Your task to perform on an android device: turn on javascript in the chrome app Image 0: 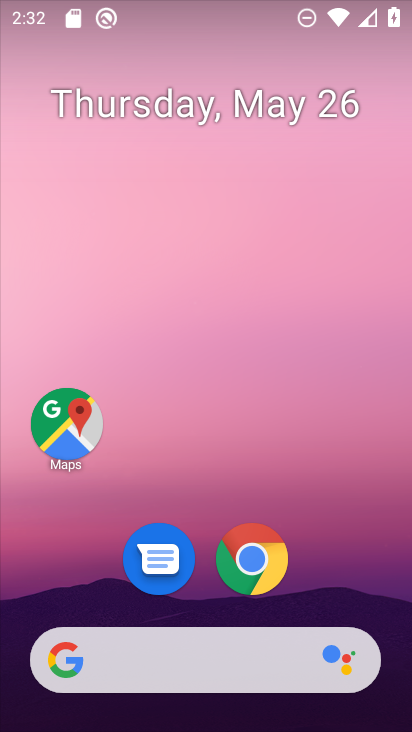
Step 0: click (255, 570)
Your task to perform on an android device: turn on javascript in the chrome app Image 1: 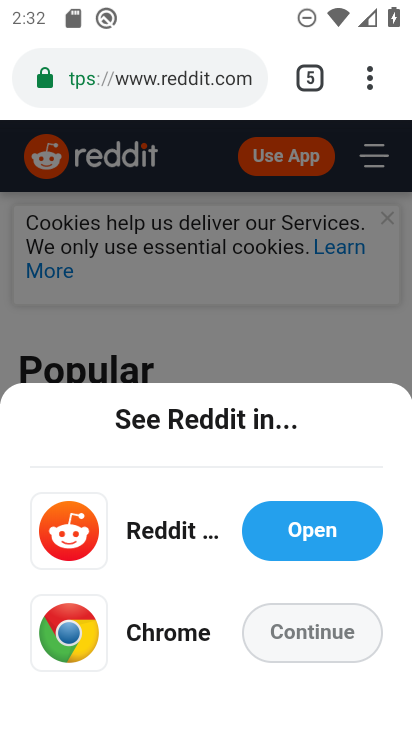
Step 1: drag from (370, 81) to (146, 613)
Your task to perform on an android device: turn on javascript in the chrome app Image 2: 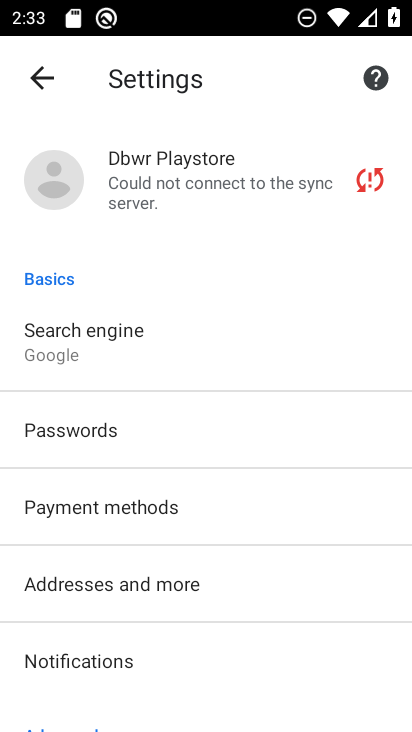
Step 2: drag from (220, 627) to (330, 254)
Your task to perform on an android device: turn on javascript in the chrome app Image 3: 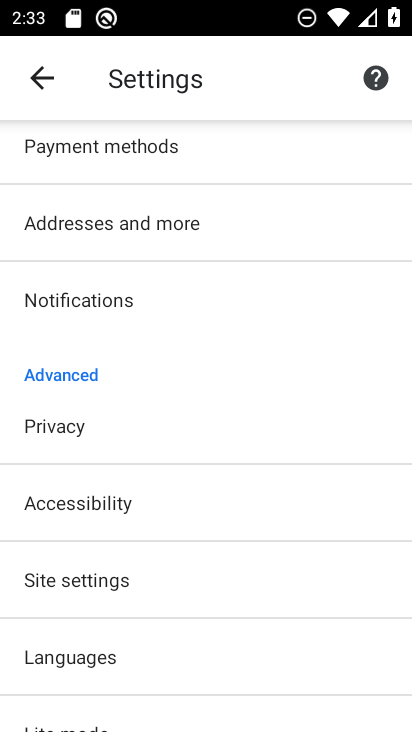
Step 3: click (136, 585)
Your task to perform on an android device: turn on javascript in the chrome app Image 4: 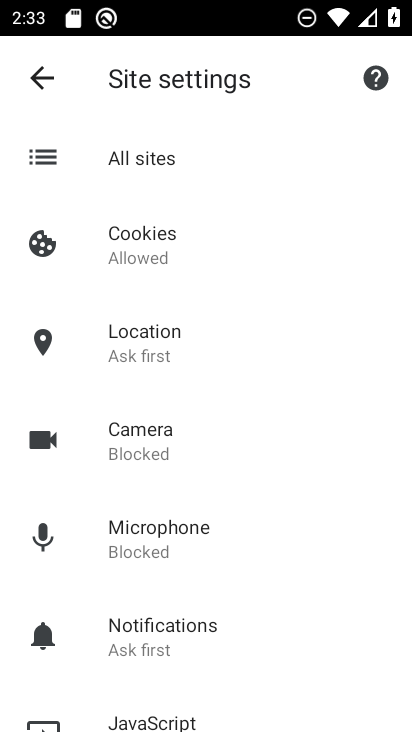
Step 4: drag from (224, 606) to (343, 303)
Your task to perform on an android device: turn on javascript in the chrome app Image 5: 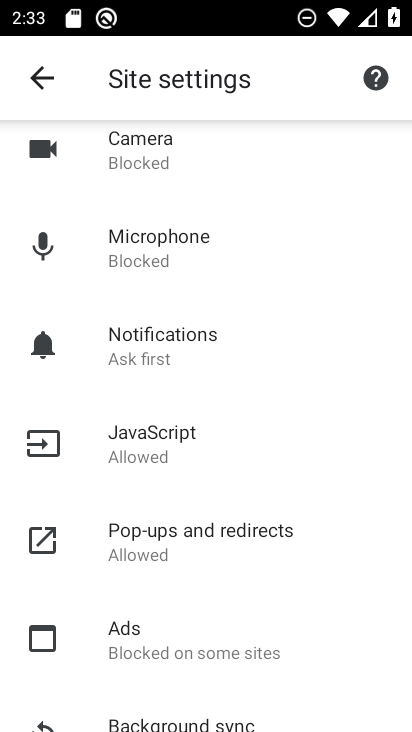
Step 5: click (175, 439)
Your task to perform on an android device: turn on javascript in the chrome app Image 6: 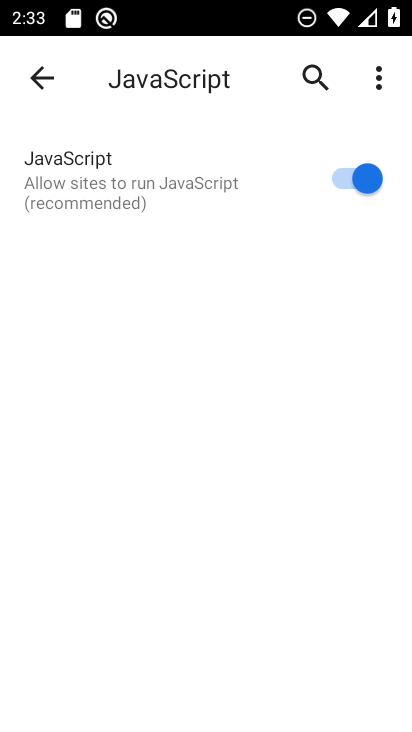
Step 6: task complete